Your task to perform on an android device: Show me the alarms in the clock app Image 0: 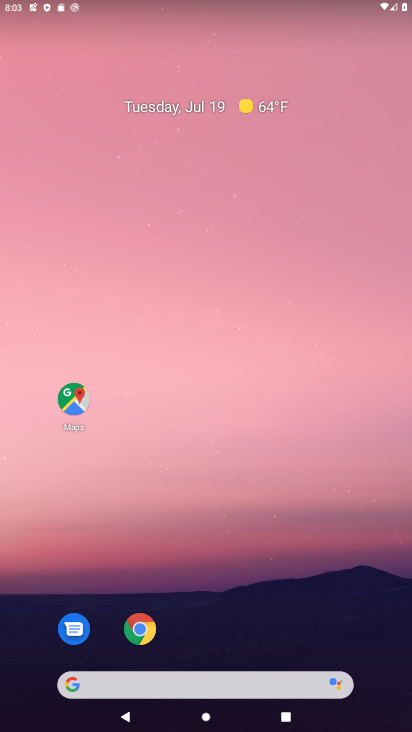
Step 0: click (250, 178)
Your task to perform on an android device: Show me the alarms in the clock app Image 1: 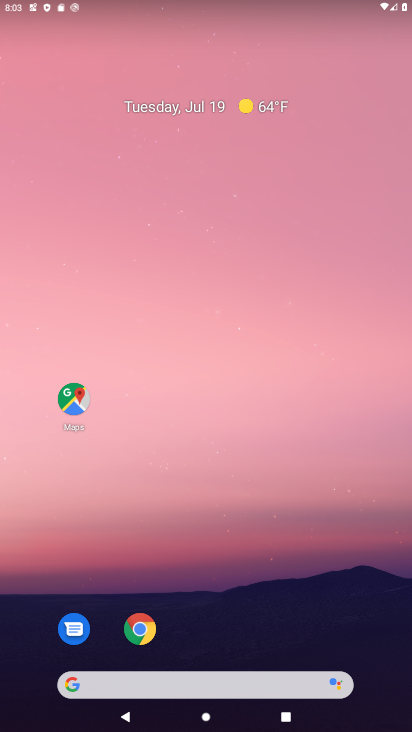
Step 1: drag from (210, 633) to (265, 191)
Your task to perform on an android device: Show me the alarms in the clock app Image 2: 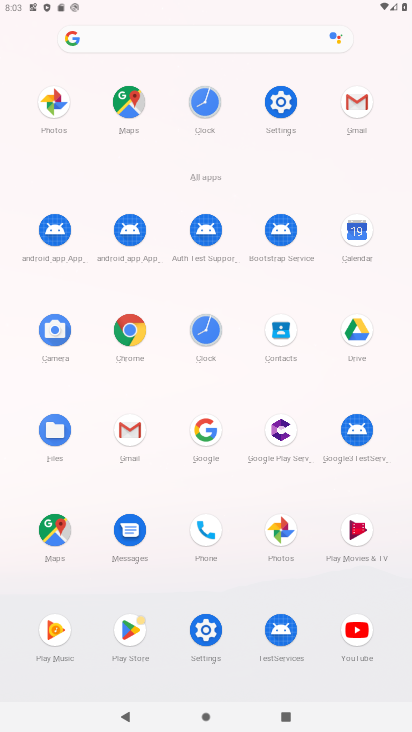
Step 2: click (205, 325)
Your task to perform on an android device: Show me the alarms in the clock app Image 3: 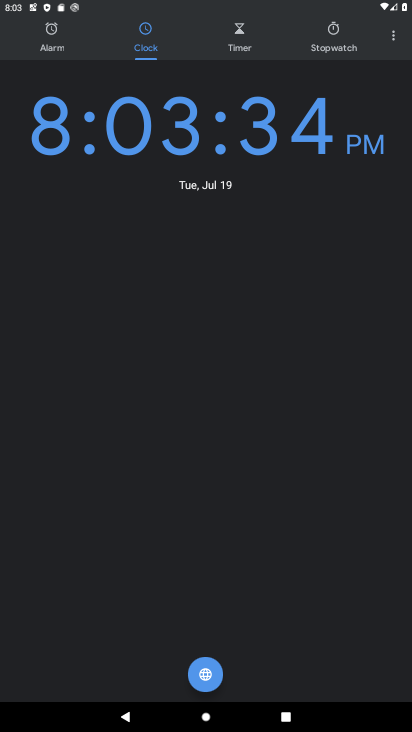
Step 3: drag from (208, 557) to (256, 322)
Your task to perform on an android device: Show me the alarms in the clock app Image 4: 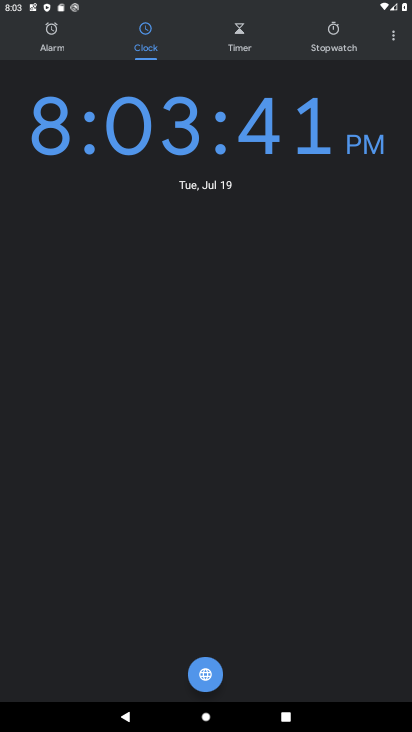
Step 4: drag from (229, 574) to (266, 375)
Your task to perform on an android device: Show me the alarms in the clock app Image 5: 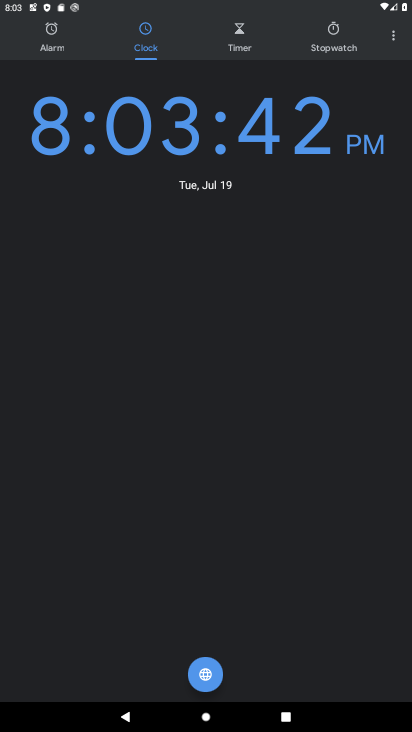
Step 5: click (389, 29)
Your task to perform on an android device: Show me the alarms in the clock app Image 6: 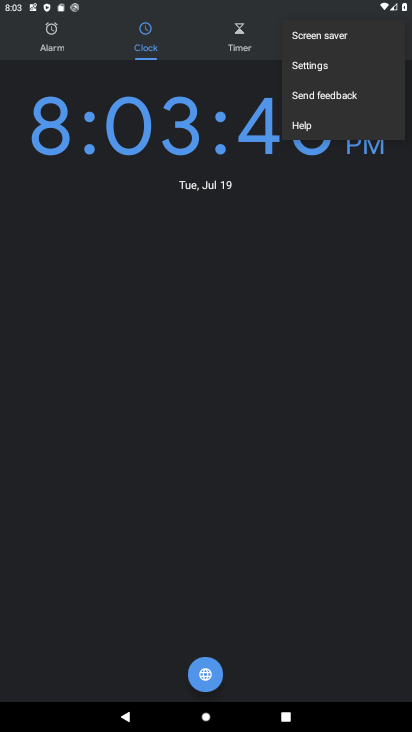
Step 6: click (326, 67)
Your task to perform on an android device: Show me the alarms in the clock app Image 7: 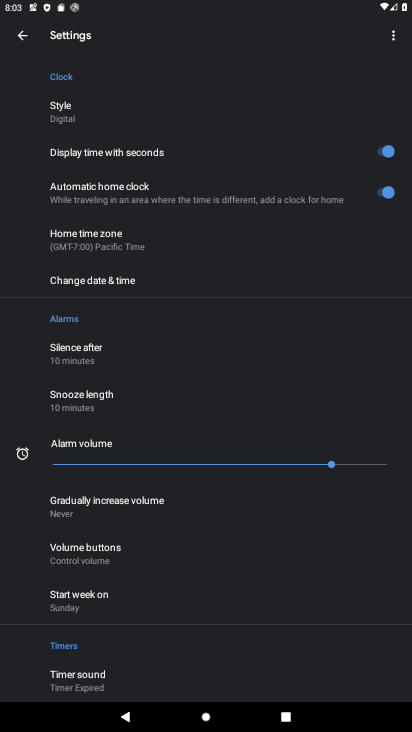
Step 7: drag from (247, 654) to (228, 466)
Your task to perform on an android device: Show me the alarms in the clock app Image 8: 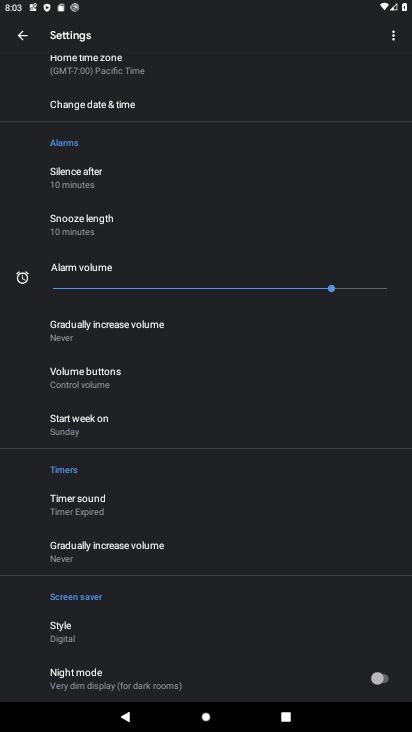
Step 8: drag from (213, 146) to (247, 564)
Your task to perform on an android device: Show me the alarms in the clock app Image 9: 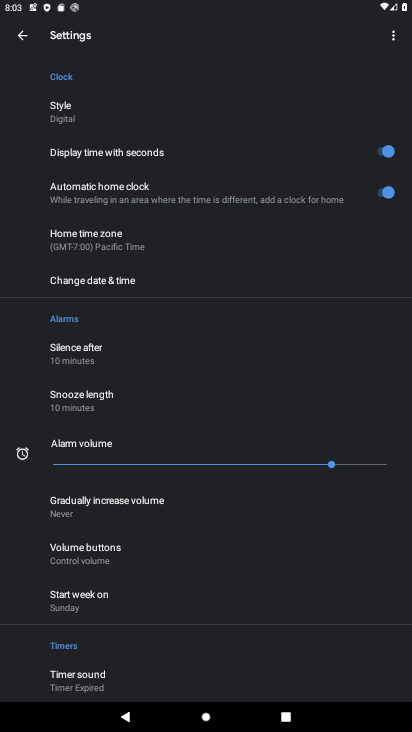
Step 9: click (21, 31)
Your task to perform on an android device: Show me the alarms in the clock app Image 10: 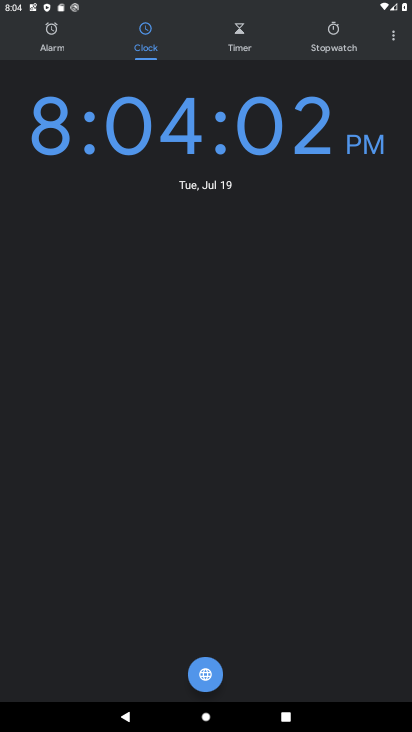
Step 10: click (61, 48)
Your task to perform on an android device: Show me the alarms in the clock app Image 11: 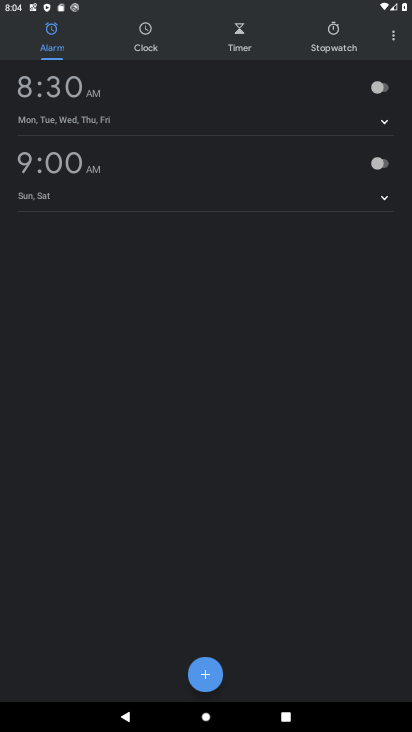
Step 11: task complete